Your task to perform on an android device: Open wifi settings Image 0: 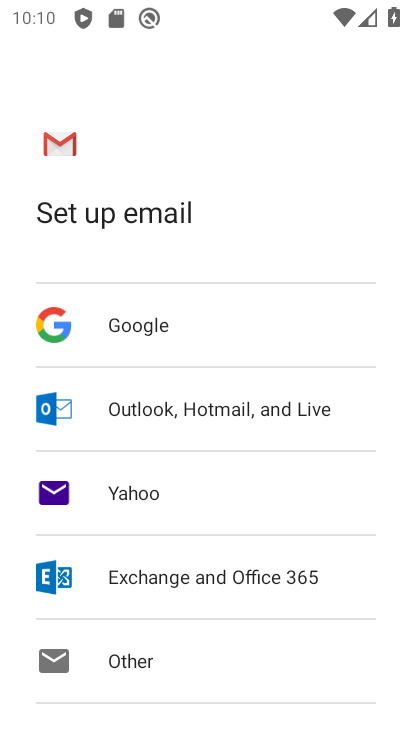
Step 0: press home button
Your task to perform on an android device: Open wifi settings Image 1: 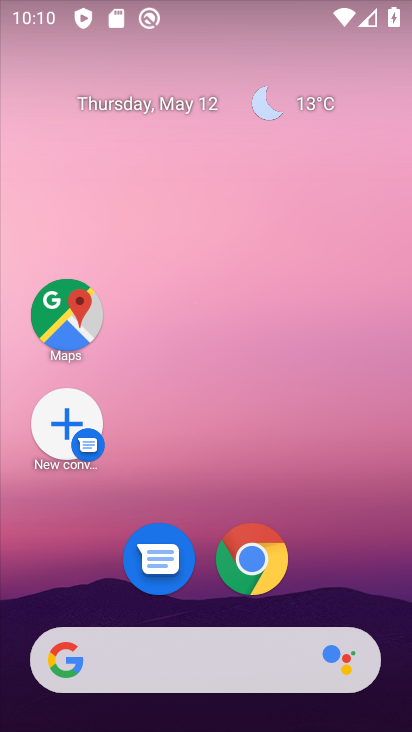
Step 1: drag from (205, 551) to (296, 21)
Your task to perform on an android device: Open wifi settings Image 2: 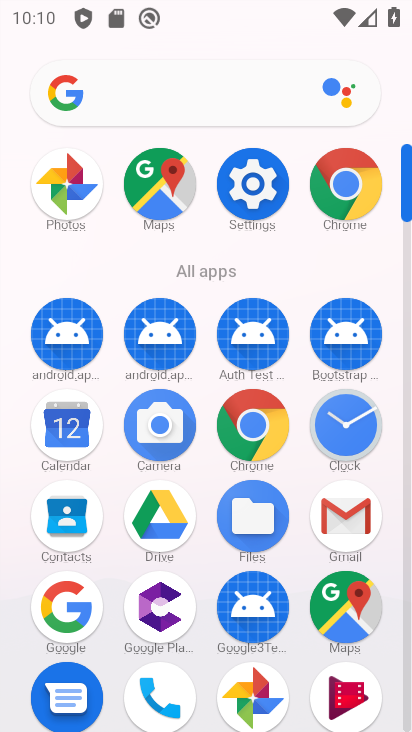
Step 2: click (258, 178)
Your task to perform on an android device: Open wifi settings Image 3: 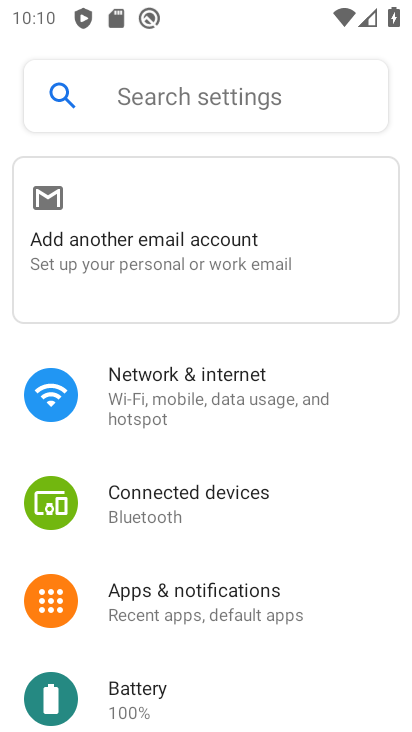
Step 3: click (189, 375)
Your task to perform on an android device: Open wifi settings Image 4: 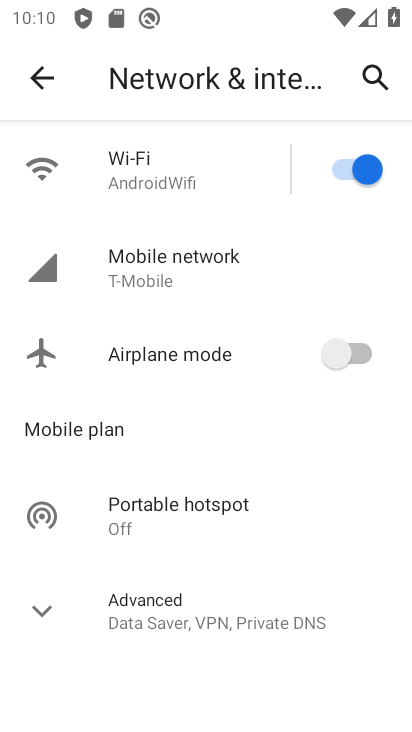
Step 4: click (169, 167)
Your task to perform on an android device: Open wifi settings Image 5: 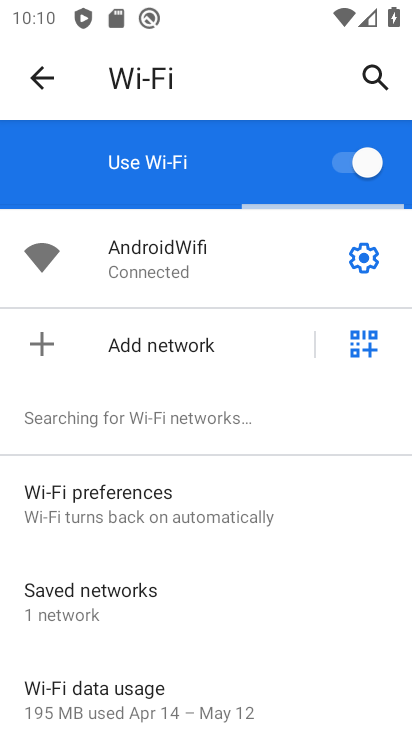
Step 5: task complete